Your task to perform on an android device: What's the weather going to be this weekend? Image 0: 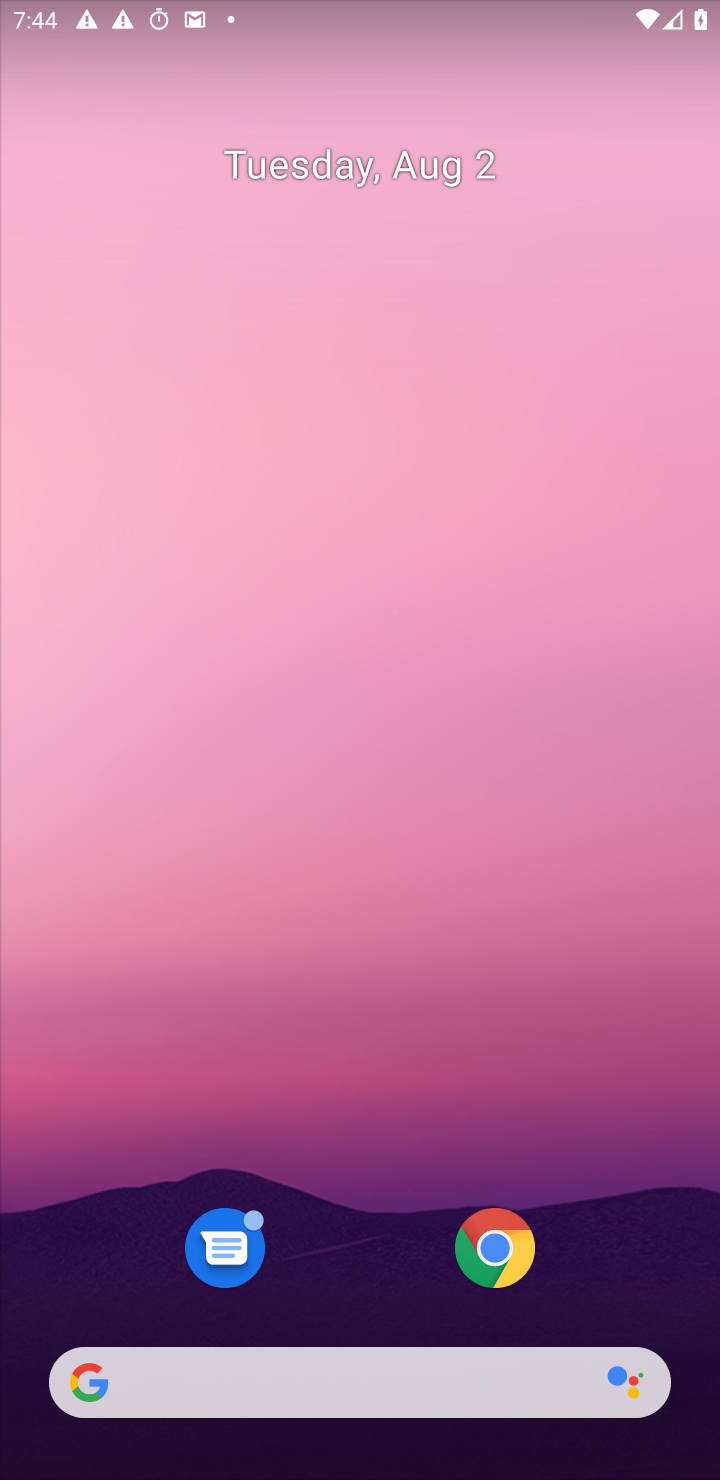
Step 0: drag from (351, 1283) to (155, 71)
Your task to perform on an android device: What's the weather going to be this weekend? Image 1: 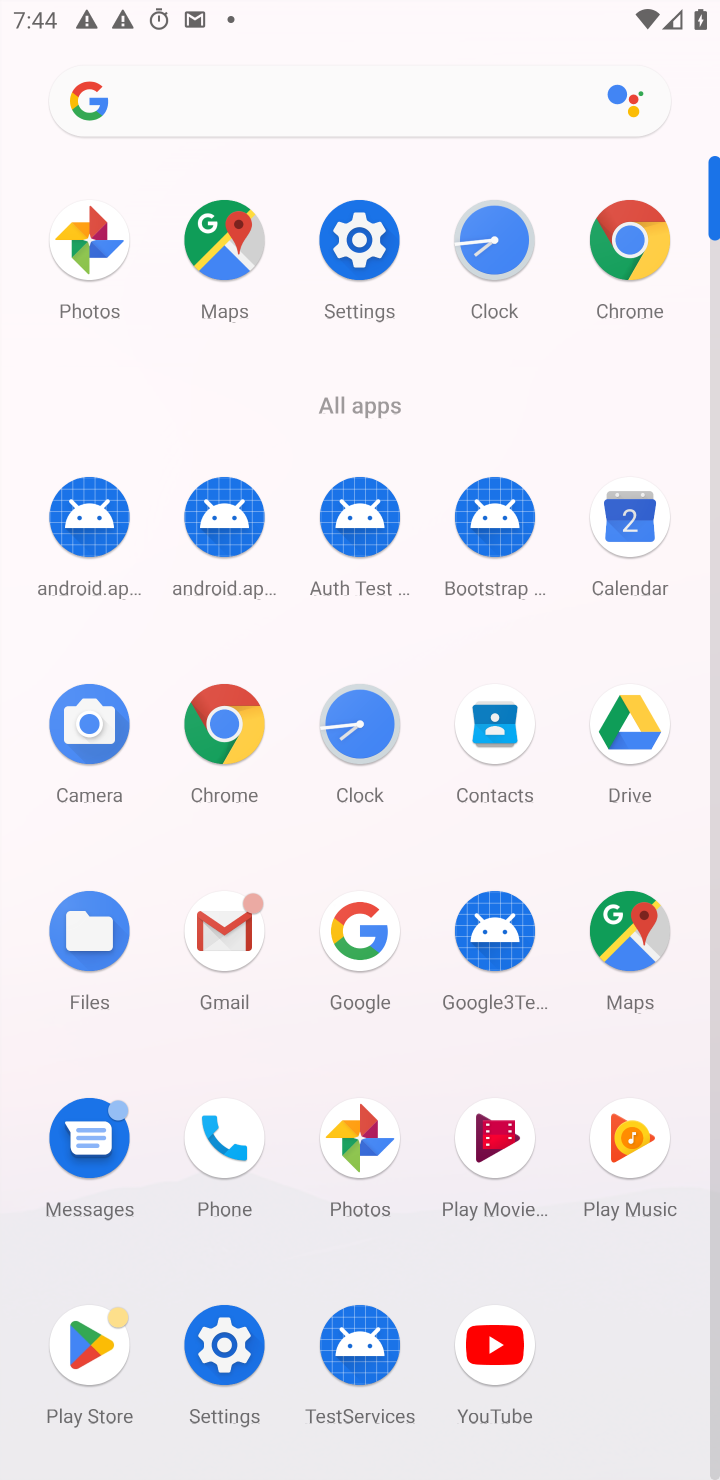
Step 1: click (209, 104)
Your task to perform on an android device: What's the weather going to be this weekend? Image 2: 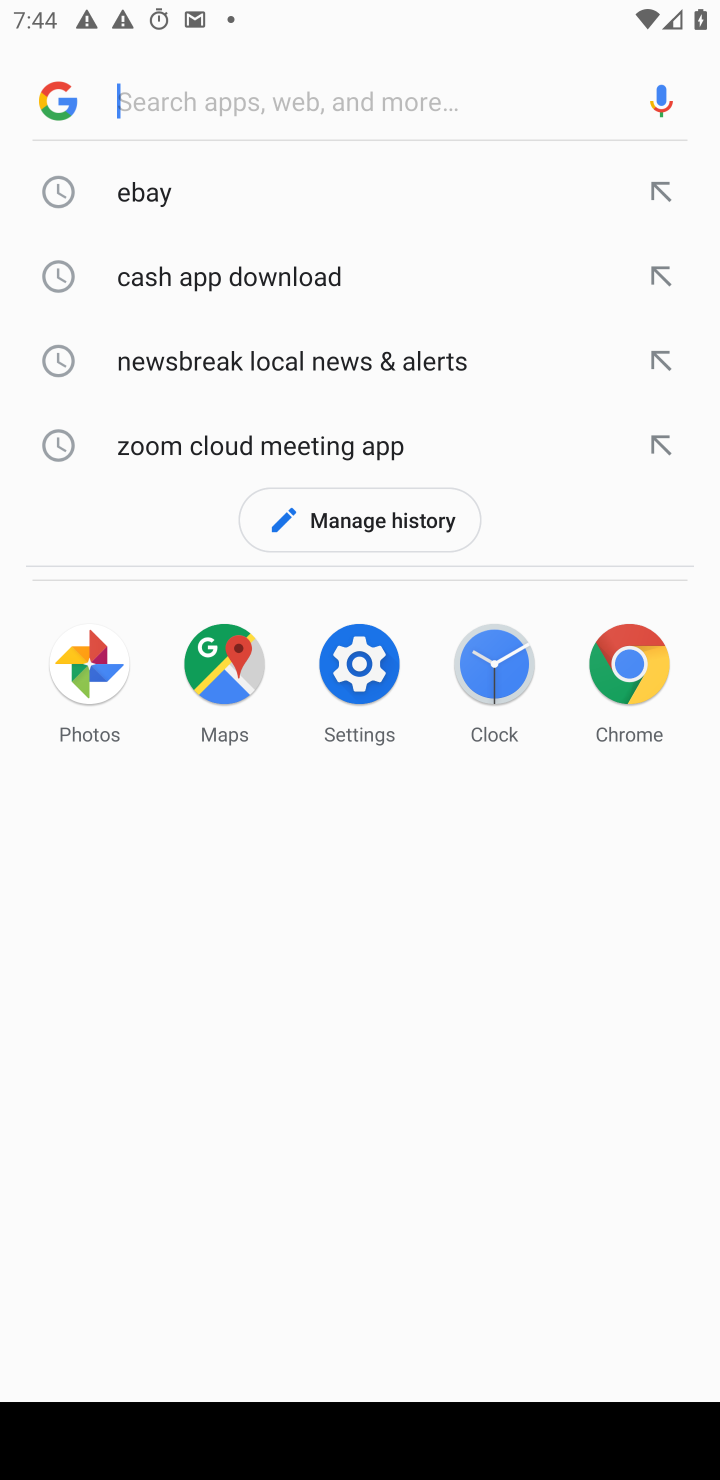
Step 2: type "What's the weather going to be this weekend?"
Your task to perform on an android device: What's the weather going to be this weekend? Image 3: 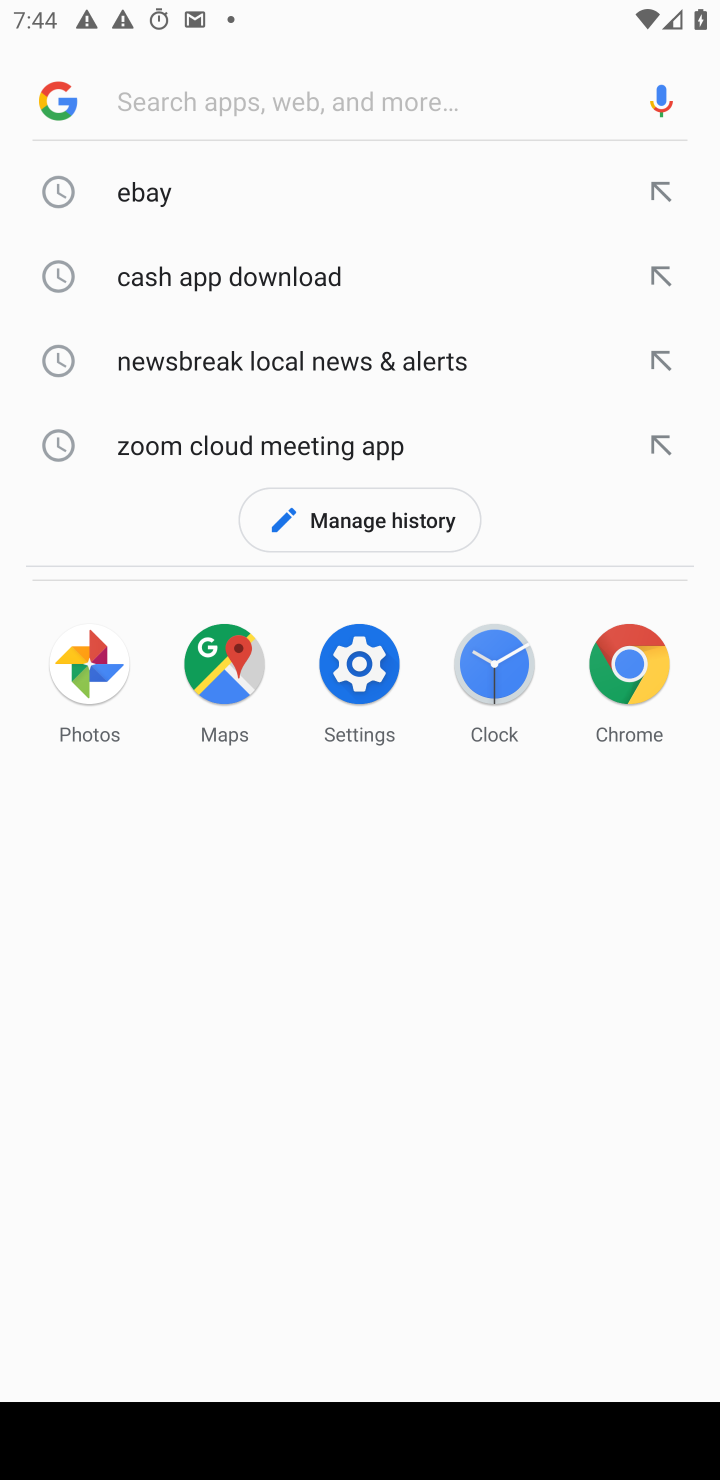
Step 3: click (201, 92)
Your task to perform on an android device: What's the weather going to be this weekend? Image 4: 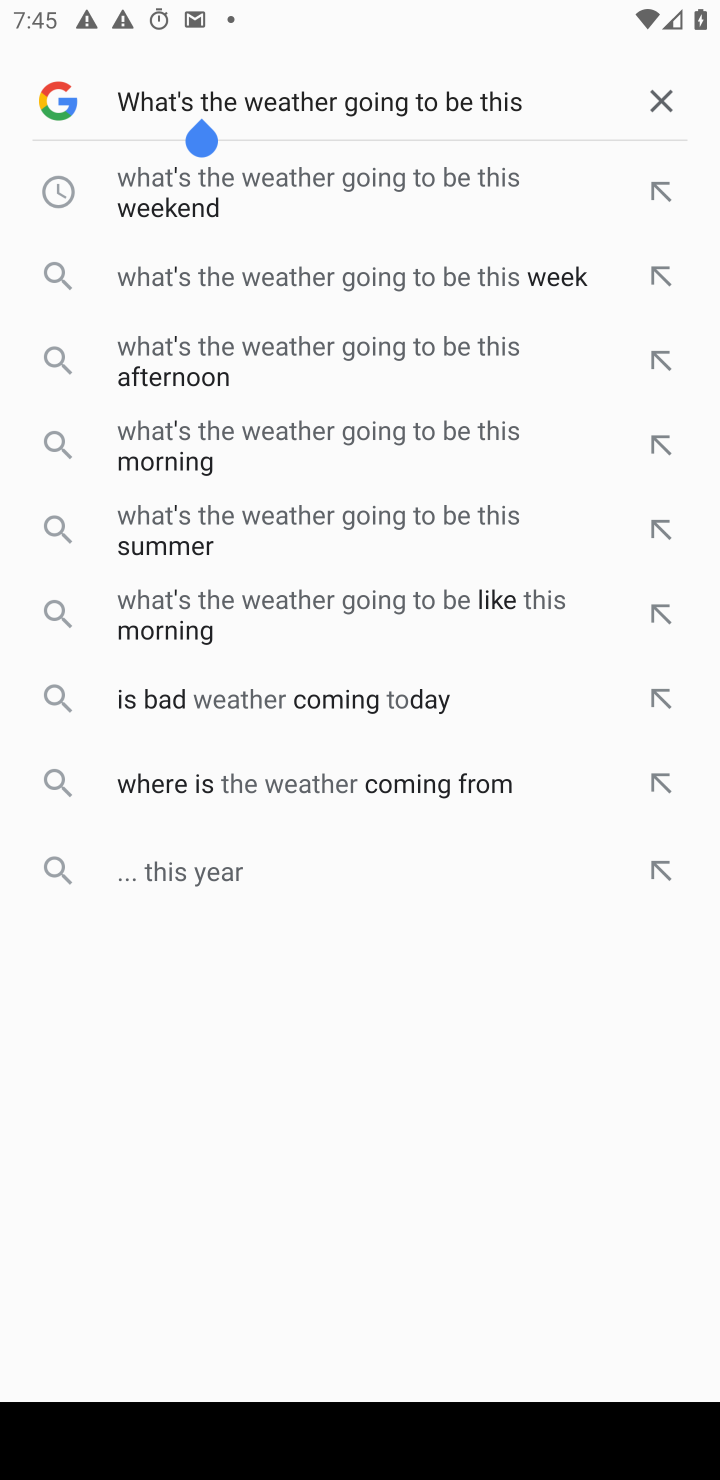
Step 4: click (158, 187)
Your task to perform on an android device: What's the weather going to be this weekend? Image 5: 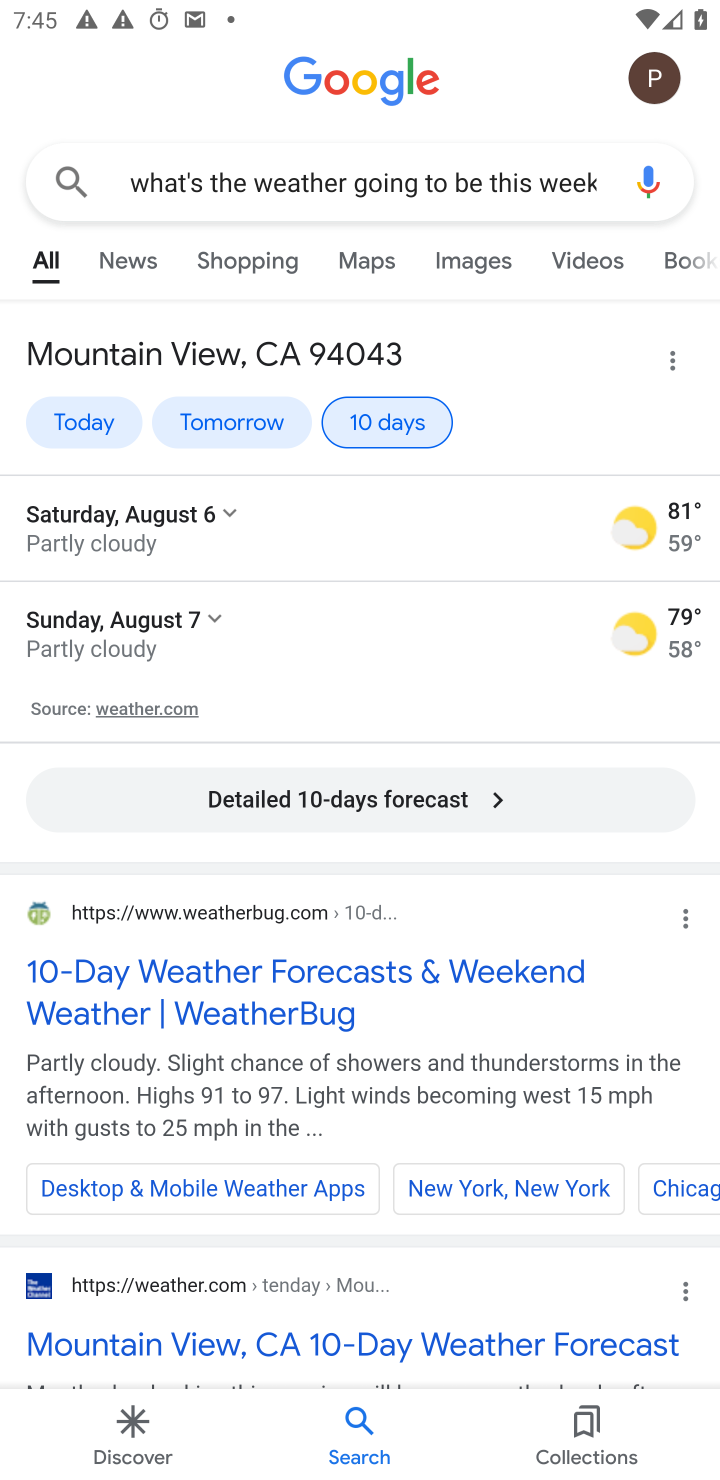
Step 5: task complete